Your task to perform on an android device: delete the emails in spam in the gmail app Image 0: 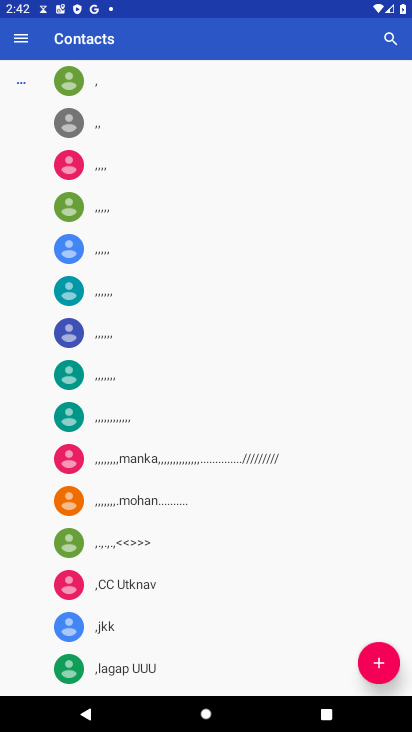
Step 0: press home button
Your task to perform on an android device: delete the emails in spam in the gmail app Image 1: 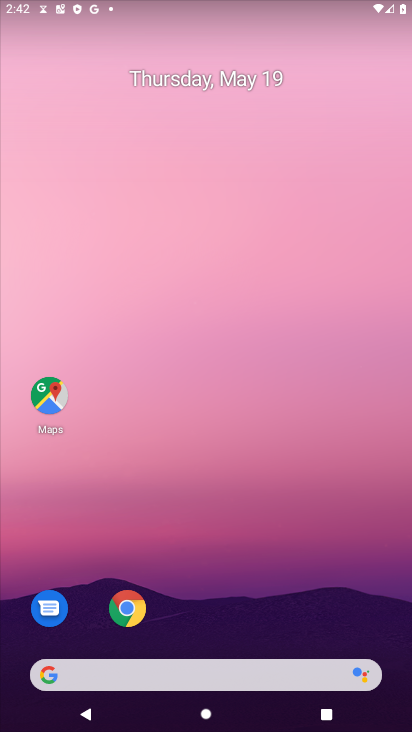
Step 1: drag from (250, 610) to (225, 244)
Your task to perform on an android device: delete the emails in spam in the gmail app Image 2: 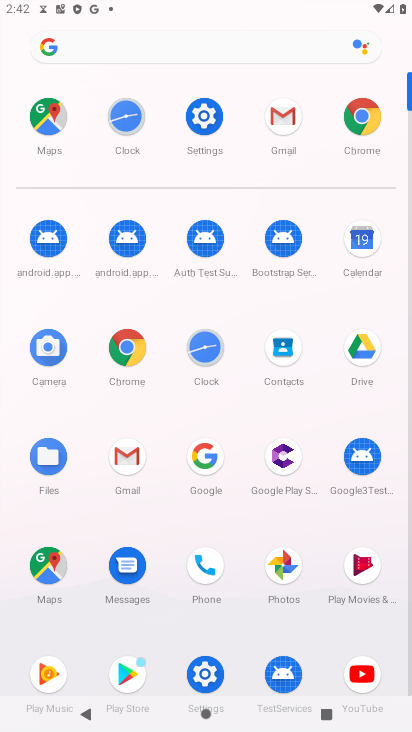
Step 2: click (274, 122)
Your task to perform on an android device: delete the emails in spam in the gmail app Image 3: 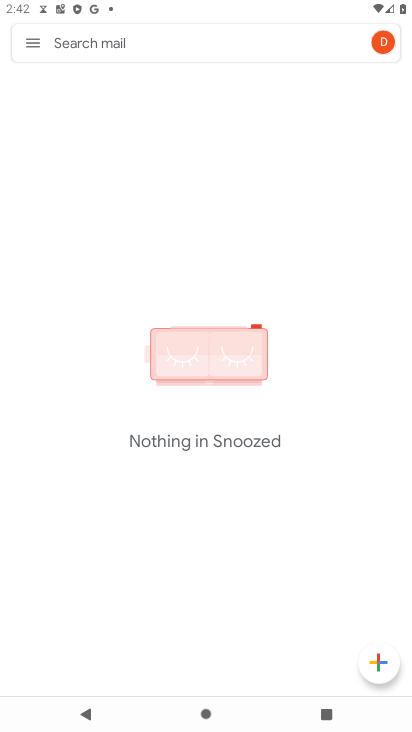
Step 3: click (30, 45)
Your task to perform on an android device: delete the emails in spam in the gmail app Image 4: 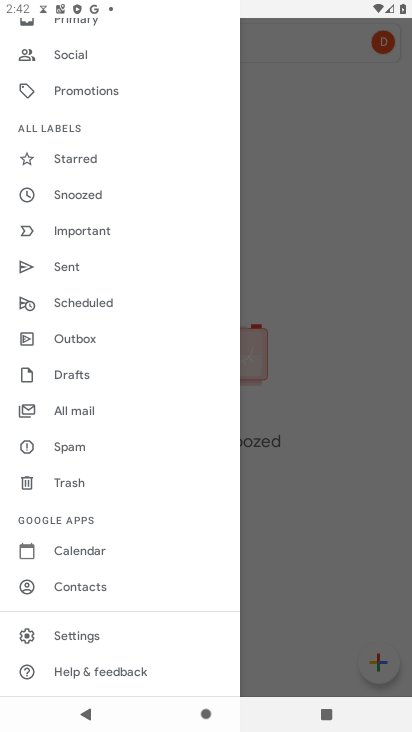
Step 4: click (88, 449)
Your task to perform on an android device: delete the emails in spam in the gmail app Image 5: 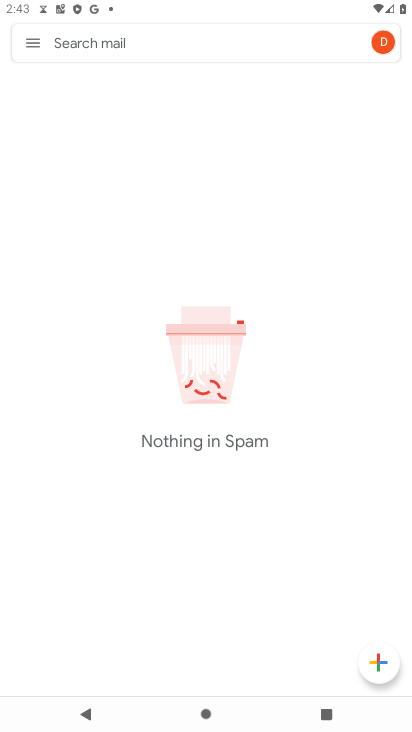
Step 5: task complete